Your task to perform on an android device: turn on translation in the chrome app Image 0: 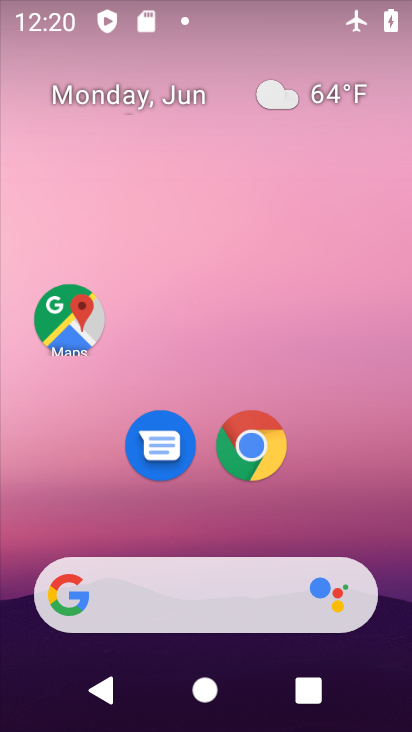
Step 0: drag from (268, 570) to (297, 5)
Your task to perform on an android device: turn on translation in the chrome app Image 1: 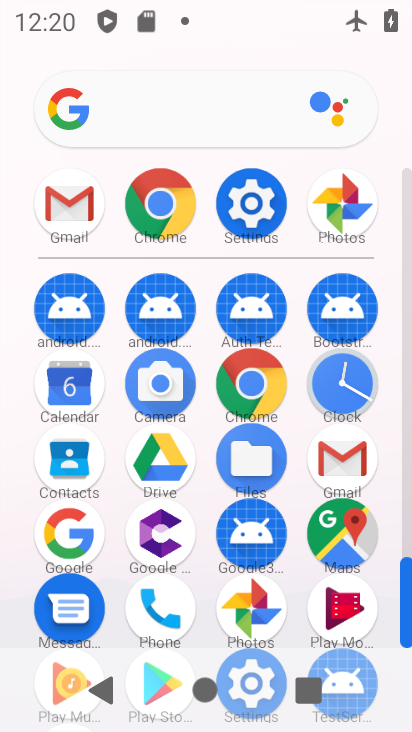
Step 1: click (267, 384)
Your task to perform on an android device: turn on translation in the chrome app Image 2: 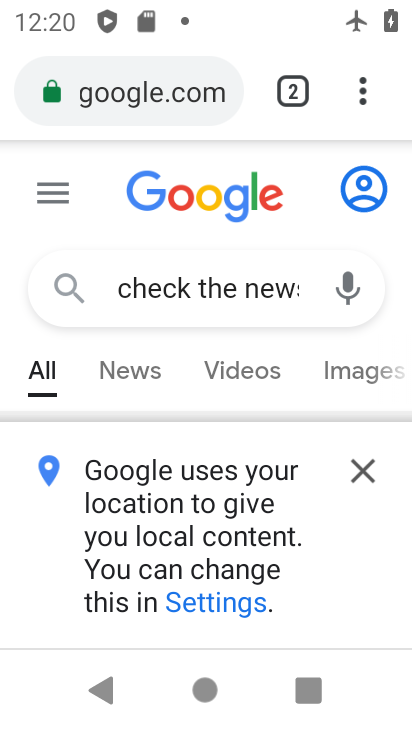
Step 2: drag from (373, 74) to (183, 483)
Your task to perform on an android device: turn on translation in the chrome app Image 3: 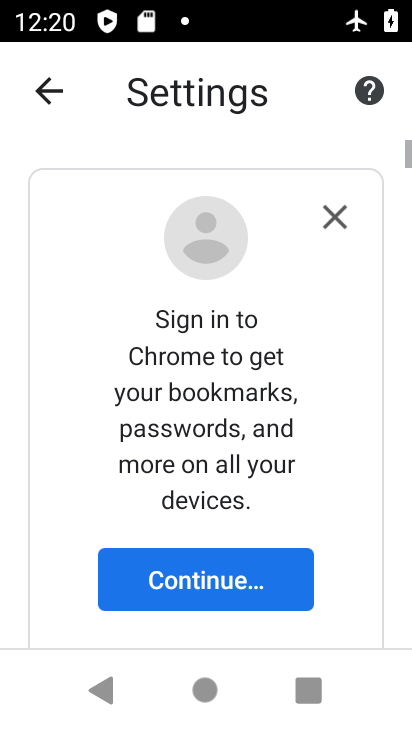
Step 3: drag from (164, 572) to (224, 93)
Your task to perform on an android device: turn on translation in the chrome app Image 4: 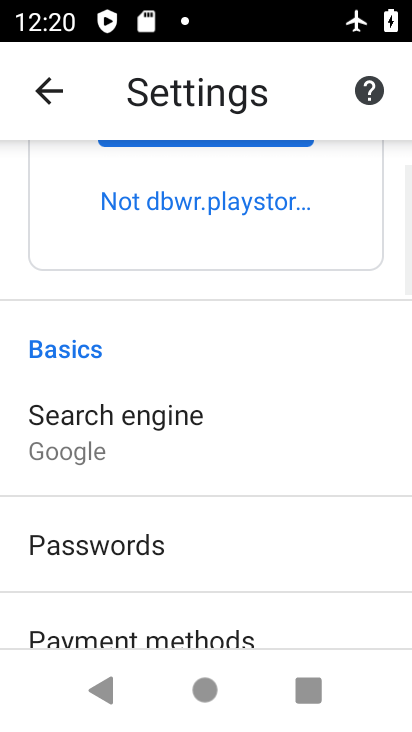
Step 4: drag from (180, 556) to (230, 240)
Your task to perform on an android device: turn on translation in the chrome app Image 5: 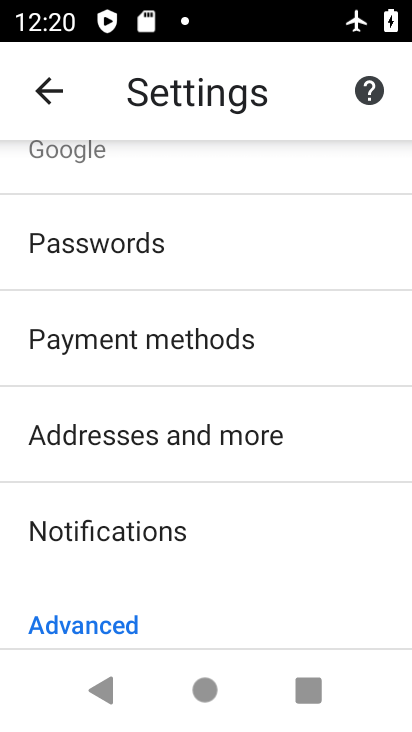
Step 5: drag from (284, 587) to (313, 172)
Your task to perform on an android device: turn on translation in the chrome app Image 6: 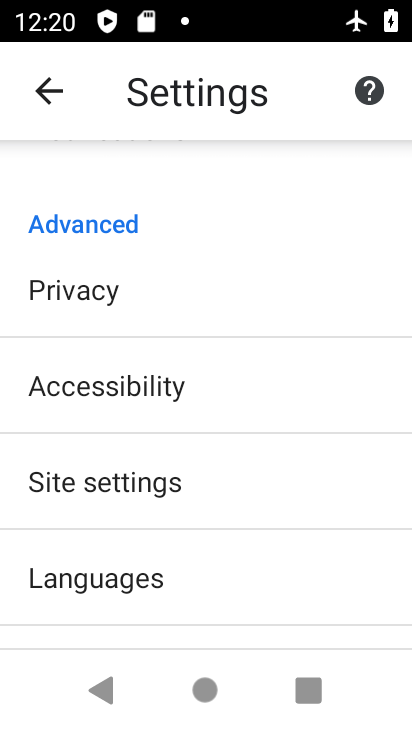
Step 6: drag from (154, 539) to (174, 221)
Your task to perform on an android device: turn on translation in the chrome app Image 7: 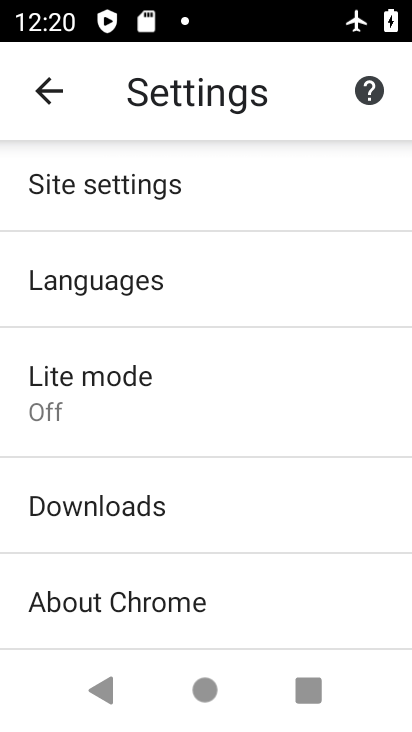
Step 7: click (153, 408)
Your task to perform on an android device: turn on translation in the chrome app Image 8: 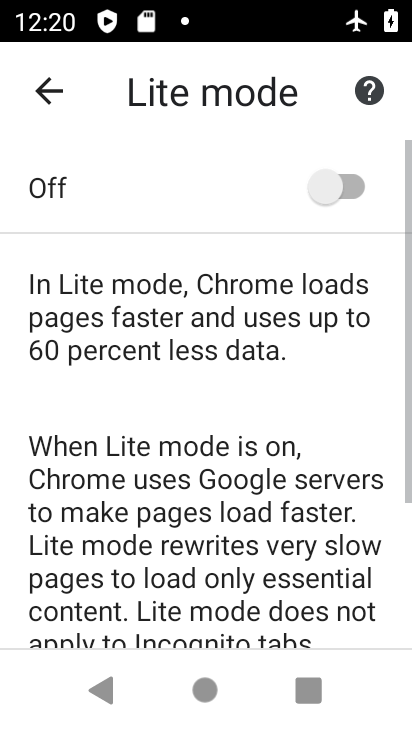
Step 8: press back button
Your task to perform on an android device: turn on translation in the chrome app Image 9: 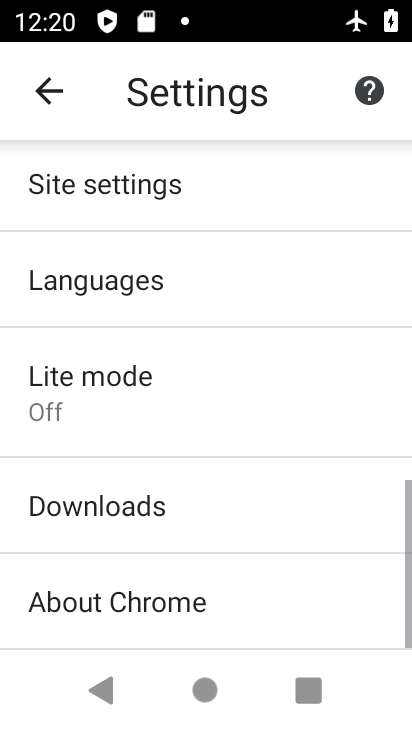
Step 9: click (201, 289)
Your task to perform on an android device: turn on translation in the chrome app Image 10: 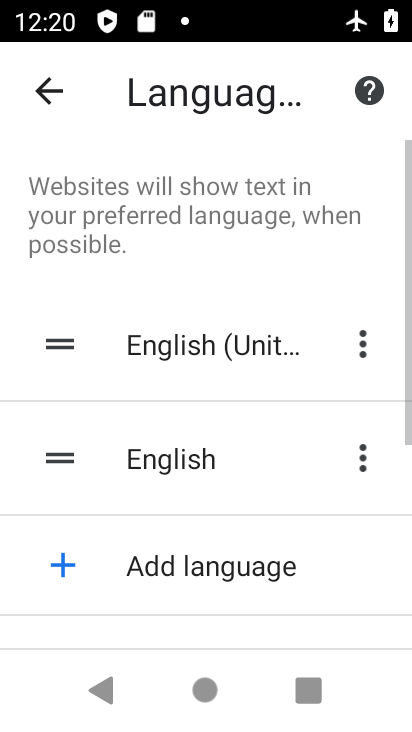
Step 10: task complete